Your task to perform on an android device: open app "PUBG MOBILE" (install if not already installed) Image 0: 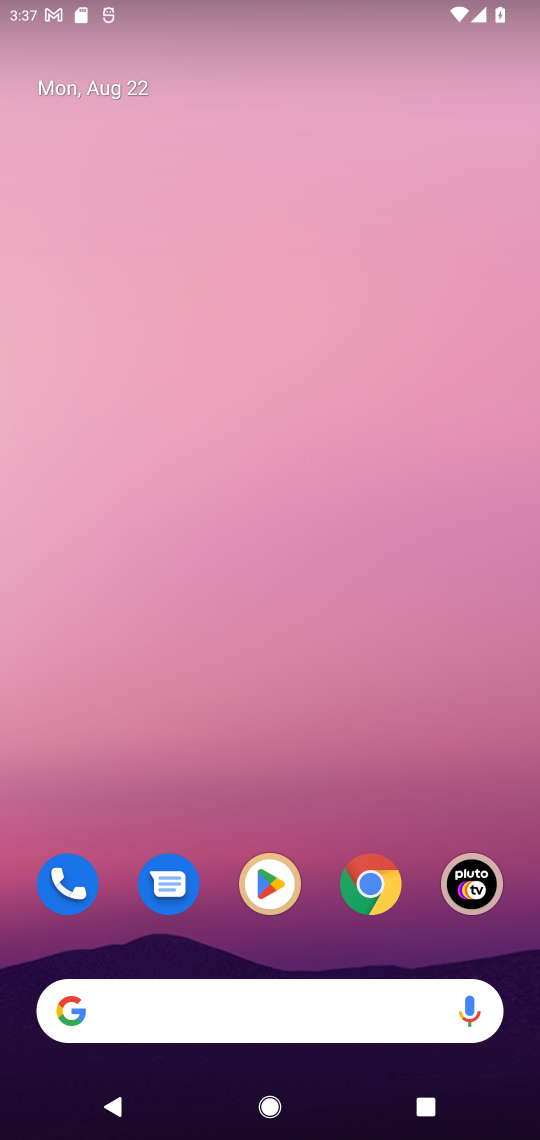
Step 0: click (276, 894)
Your task to perform on an android device: open app "PUBG MOBILE" (install if not already installed) Image 1: 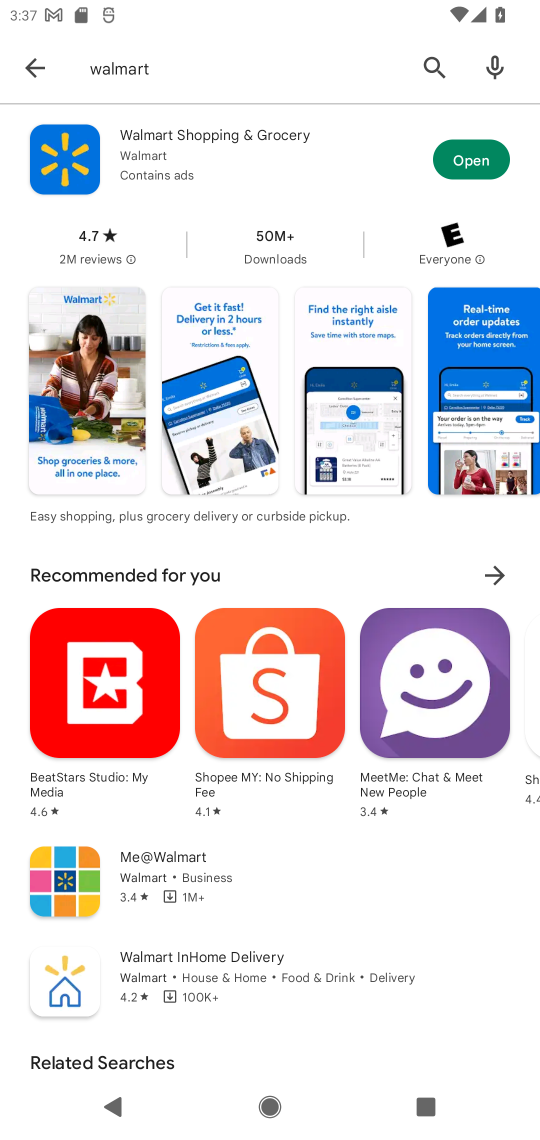
Step 1: click (184, 66)
Your task to perform on an android device: open app "PUBG MOBILE" (install if not already installed) Image 2: 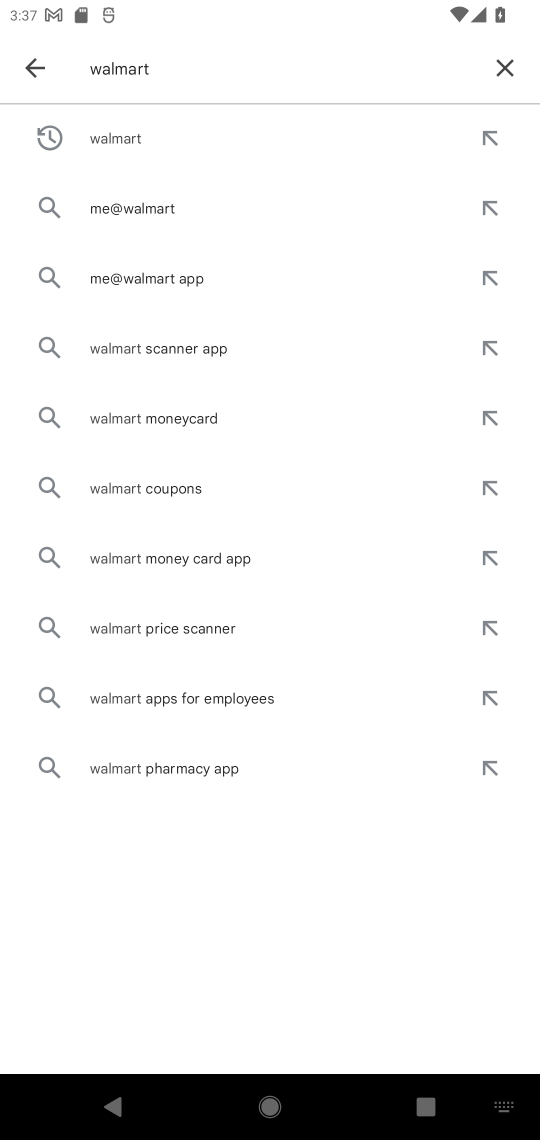
Step 2: click (497, 60)
Your task to perform on an android device: open app "PUBG MOBILE" (install if not already installed) Image 3: 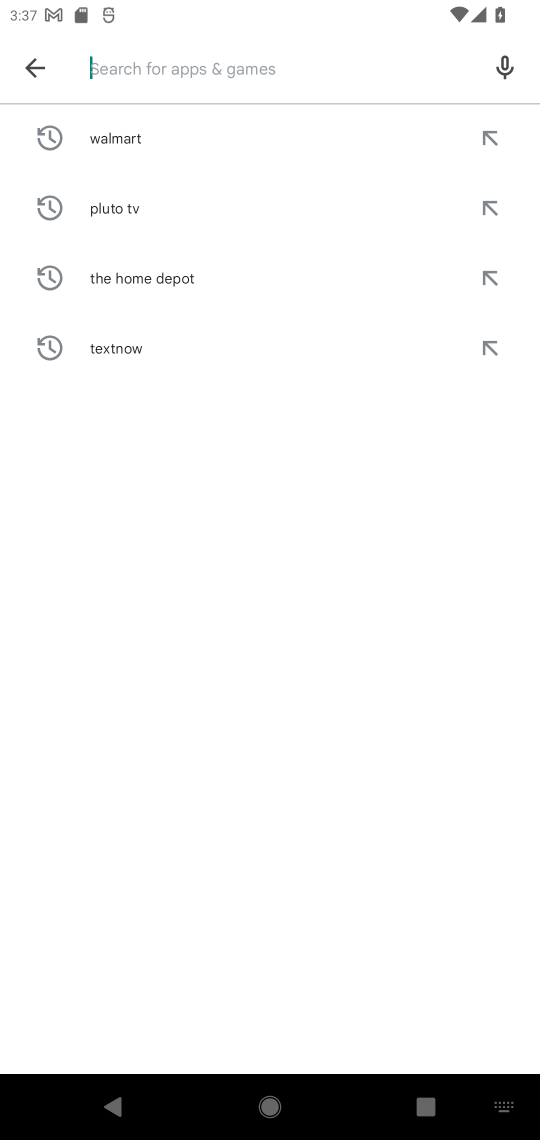
Step 3: type ""
Your task to perform on an android device: open app "PUBG MOBILE" (install if not already installed) Image 4: 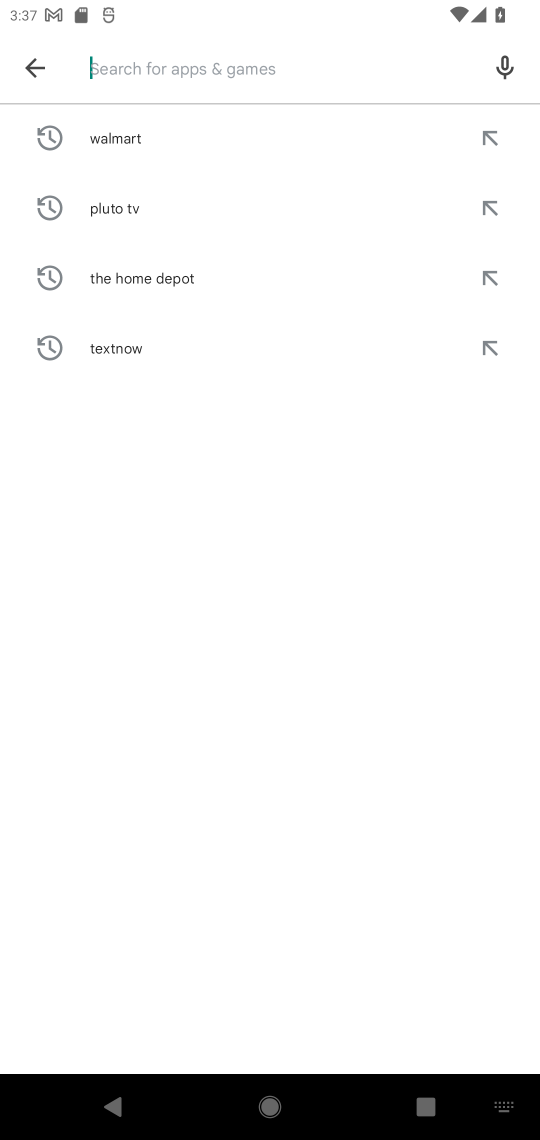
Step 4: type "PUBG mobile"
Your task to perform on an android device: open app "PUBG MOBILE" (install if not already installed) Image 5: 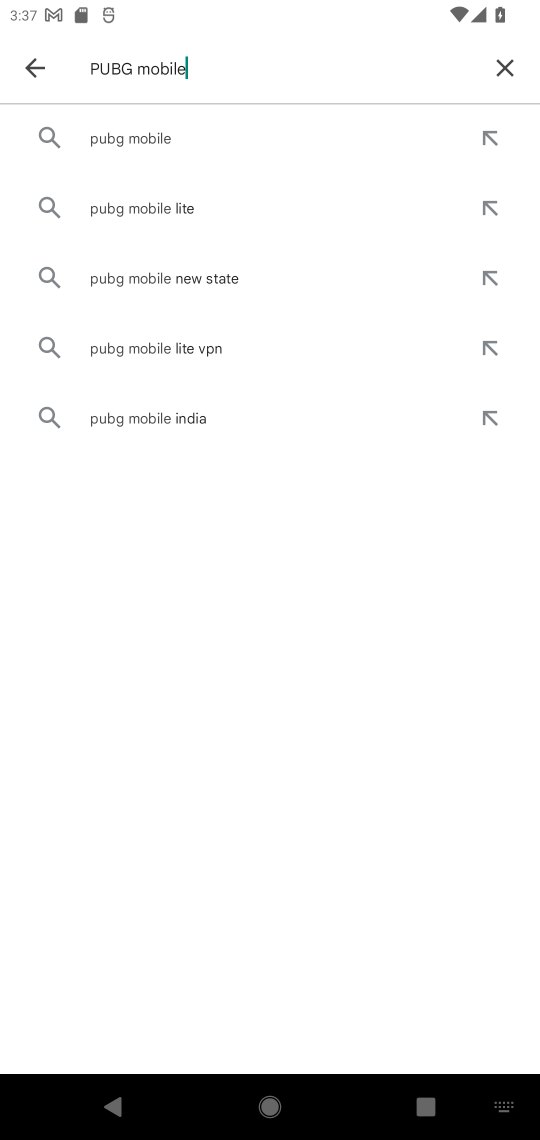
Step 5: click (147, 151)
Your task to perform on an android device: open app "PUBG MOBILE" (install if not already installed) Image 6: 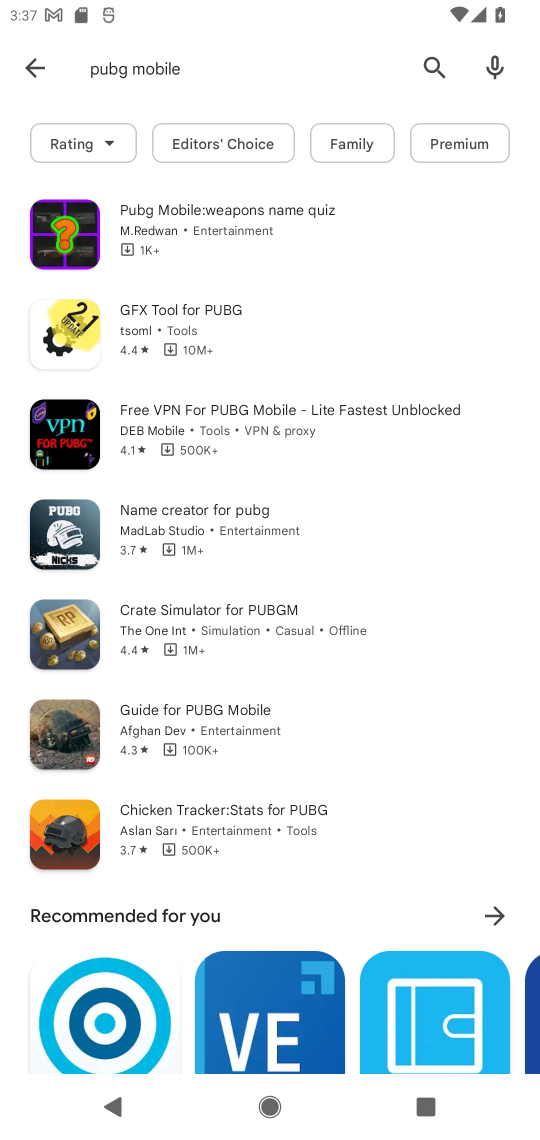
Step 6: task complete